Your task to perform on an android device: snooze an email in the gmail app Image 0: 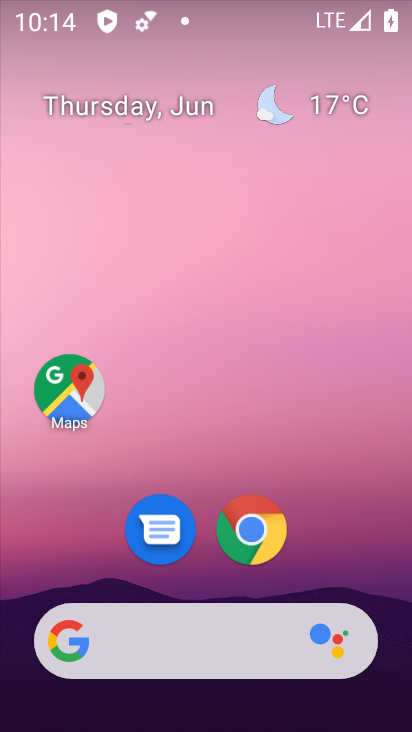
Step 0: drag from (330, 548) to (298, 5)
Your task to perform on an android device: snooze an email in the gmail app Image 1: 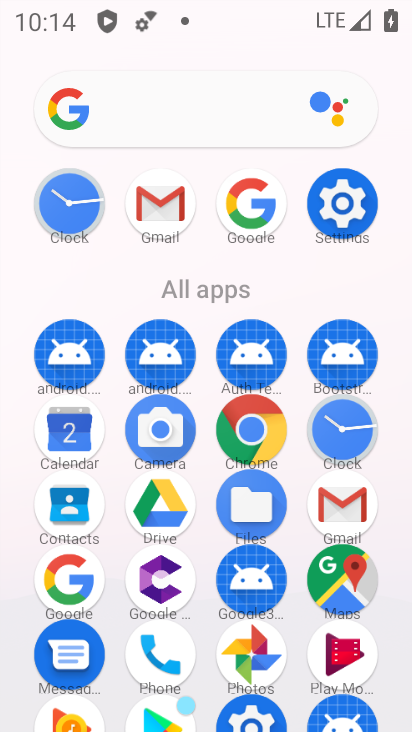
Step 1: click (335, 504)
Your task to perform on an android device: snooze an email in the gmail app Image 2: 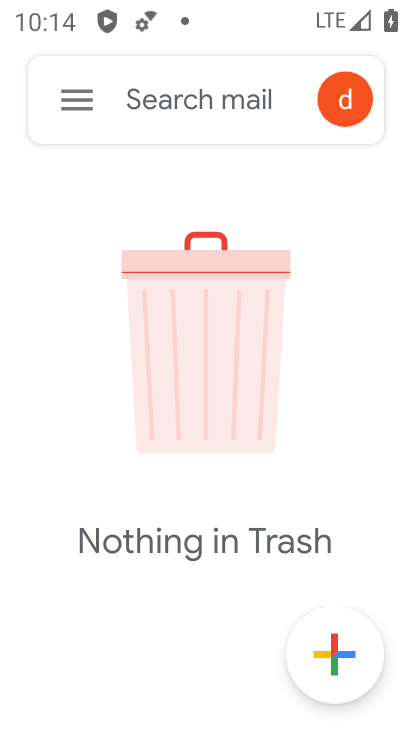
Step 2: click (69, 103)
Your task to perform on an android device: snooze an email in the gmail app Image 3: 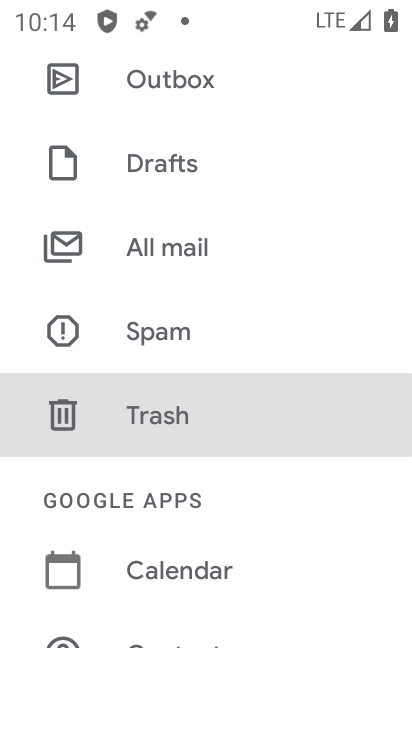
Step 3: click (226, 248)
Your task to perform on an android device: snooze an email in the gmail app Image 4: 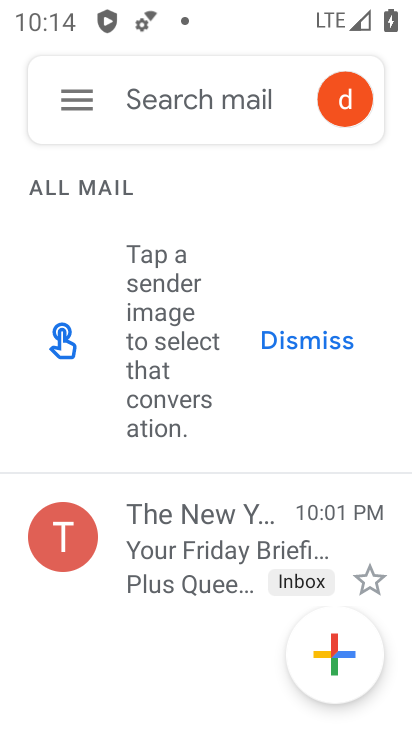
Step 4: click (191, 546)
Your task to perform on an android device: snooze an email in the gmail app Image 5: 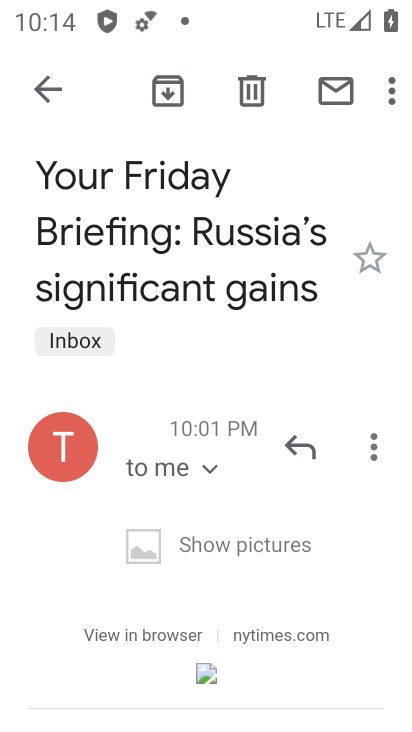
Step 5: click (389, 108)
Your task to perform on an android device: snooze an email in the gmail app Image 6: 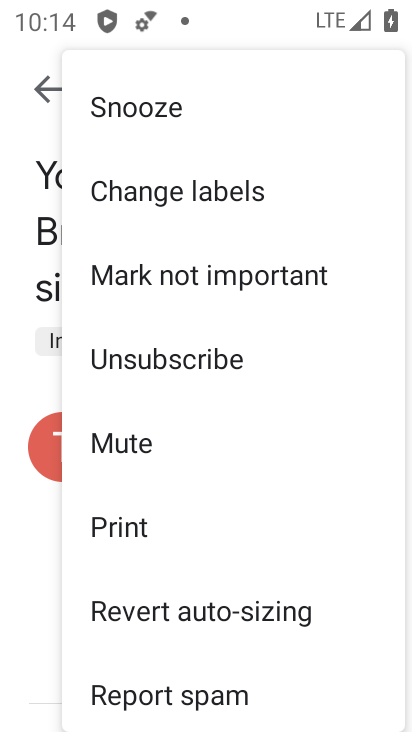
Step 6: click (132, 112)
Your task to perform on an android device: snooze an email in the gmail app Image 7: 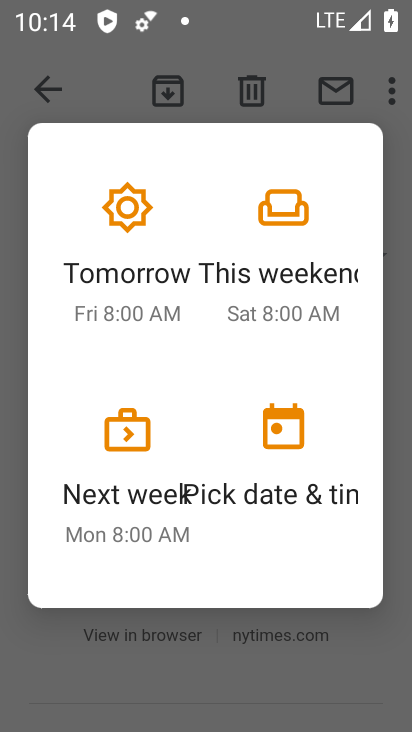
Step 7: click (125, 276)
Your task to perform on an android device: snooze an email in the gmail app Image 8: 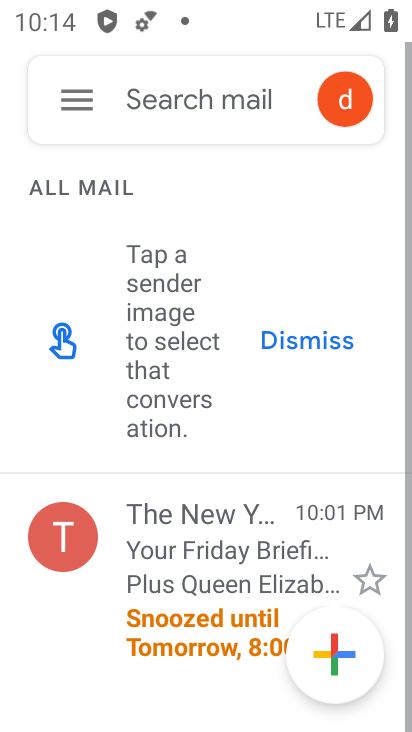
Step 8: task complete